Your task to perform on an android device: star an email in the gmail app Image 0: 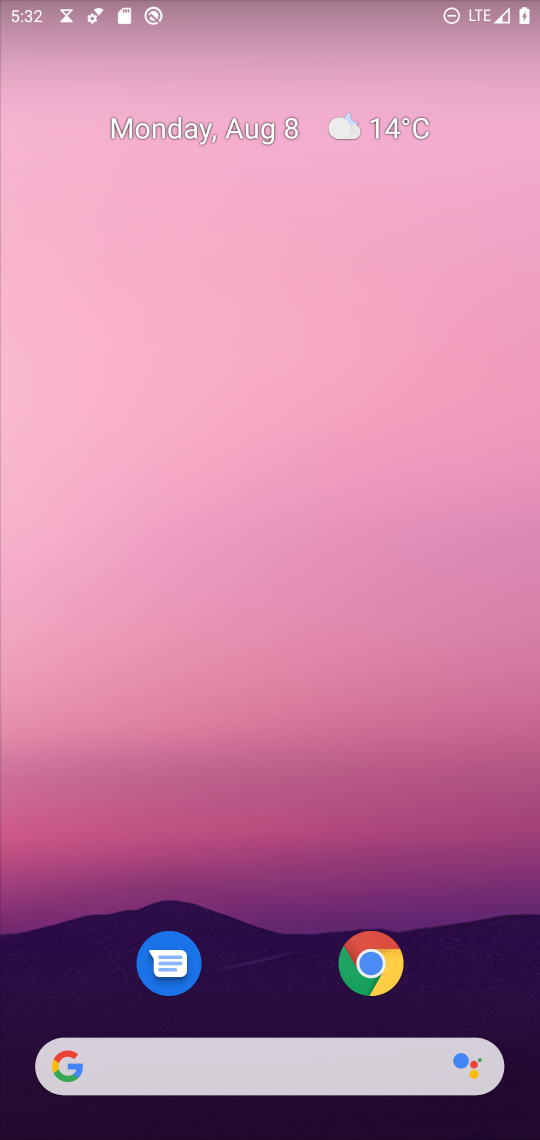
Step 0: drag from (330, 874) to (289, 125)
Your task to perform on an android device: star an email in the gmail app Image 1: 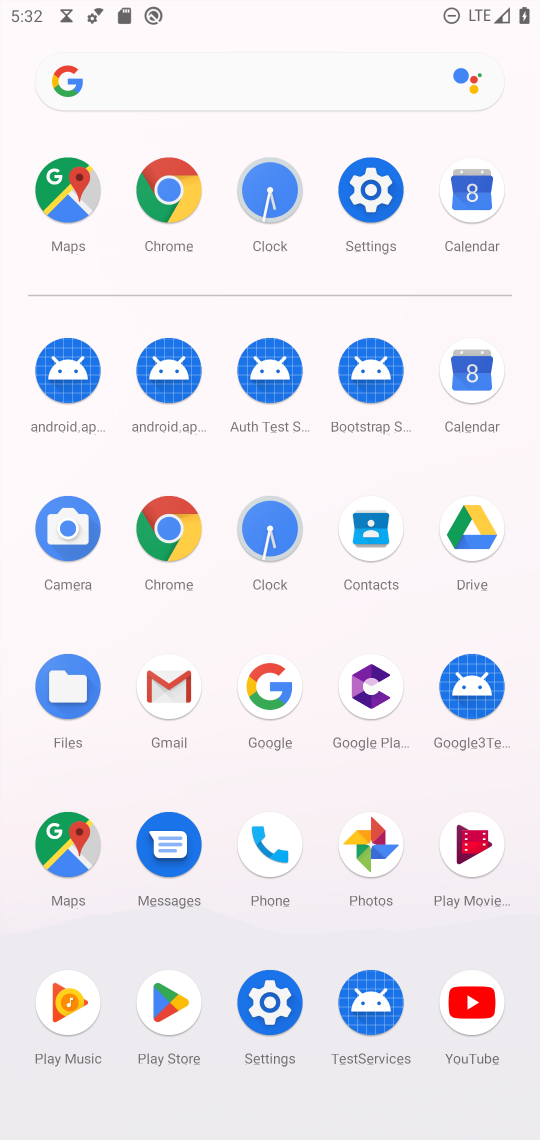
Step 1: click (152, 698)
Your task to perform on an android device: star an email in the gmail app Image 2: 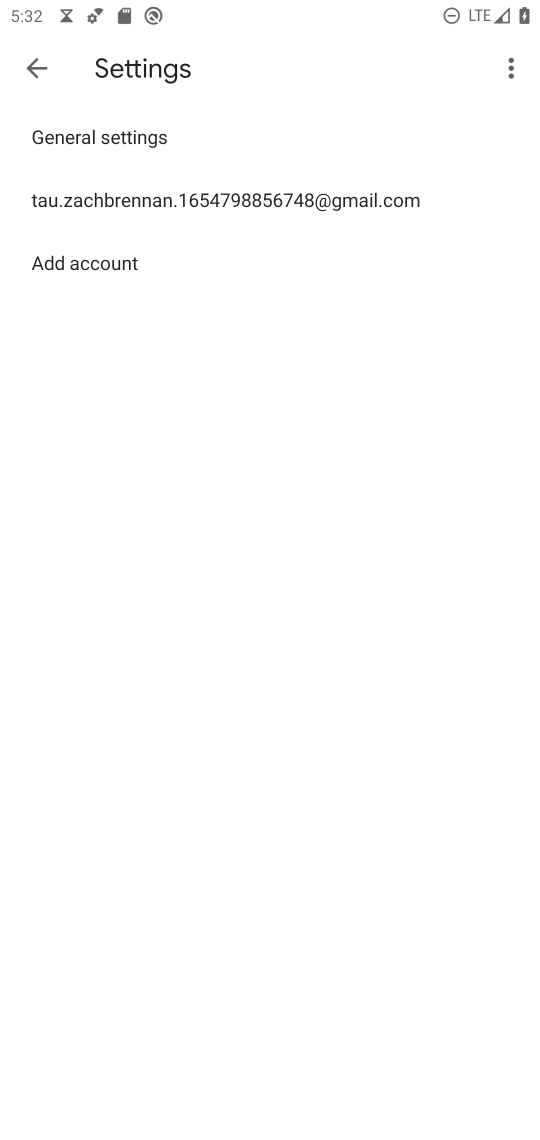
Step 2: click (39, 89)
Your task to perform on an android device: star an email in the gmail app Image 3: 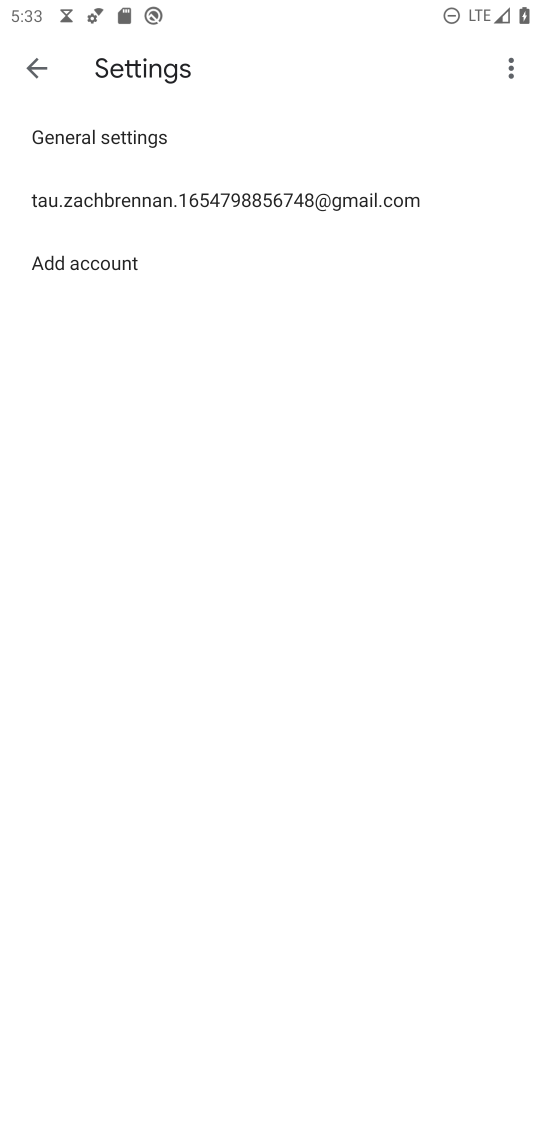
Step 3: click (42, 60)
Your task to perform on an android device: star an email in the gmail app Image 4: 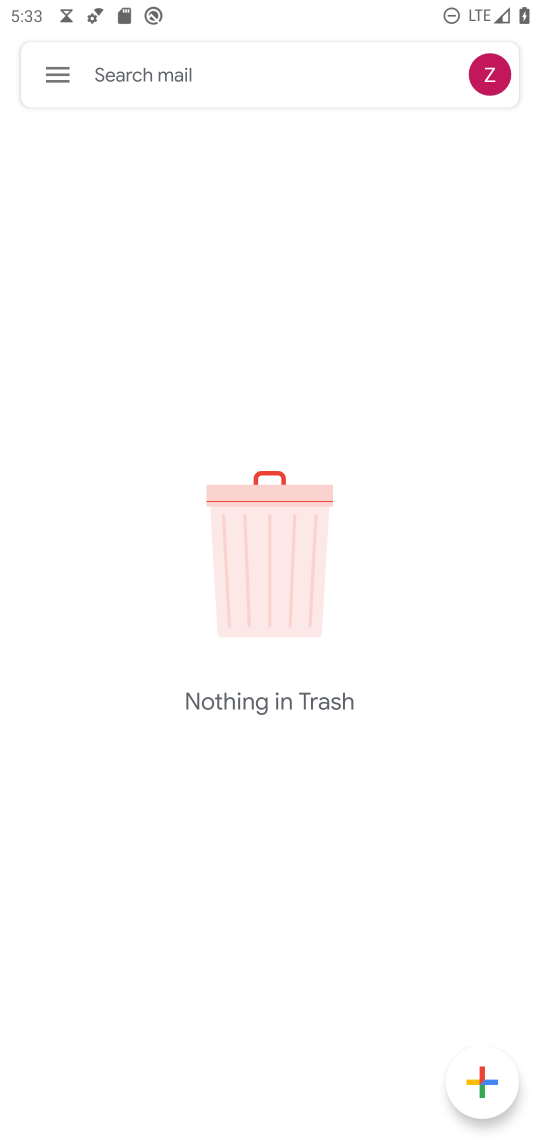
Step 4: click (63, 78)
Your task to perform on an android device: star an email in the gmail app Image 5: 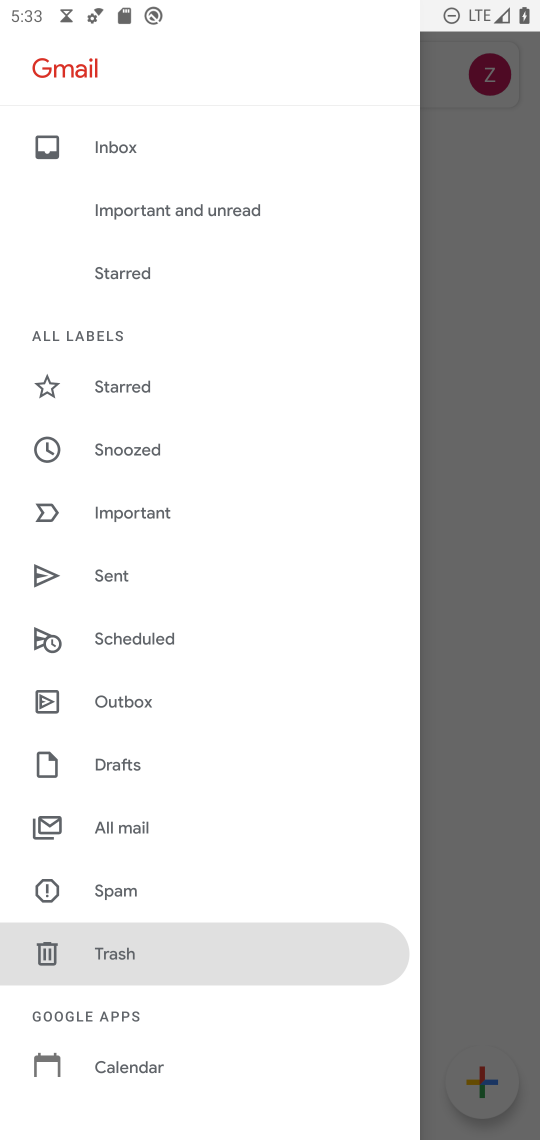
Step 5: click (144, 825)
Your task to perform on an android device: star an email in the gmail app Image 6: 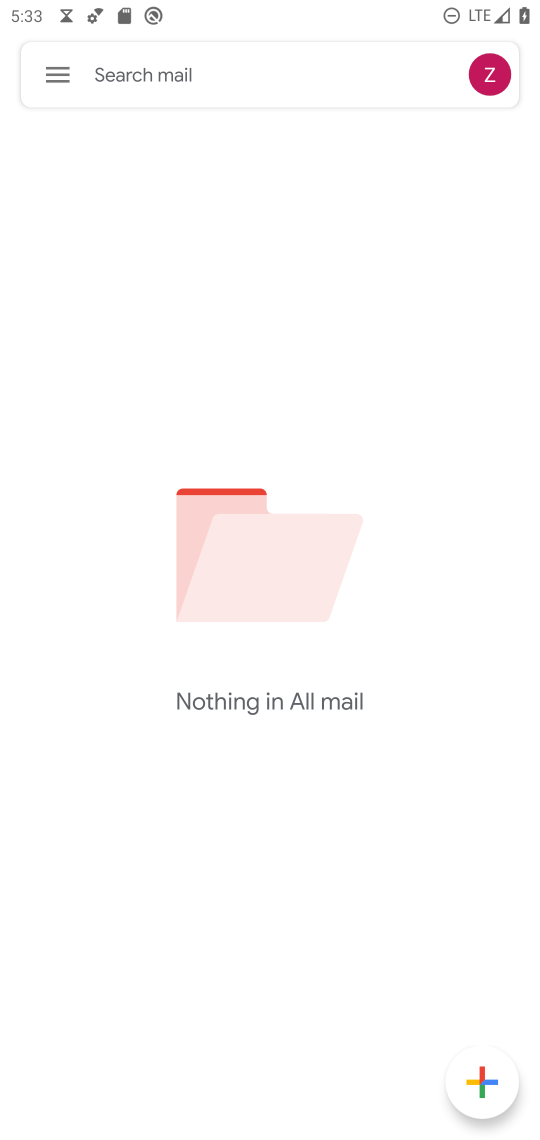
Step 6: task complete